Your task to perform on an android device: turn on wifi Image 0: 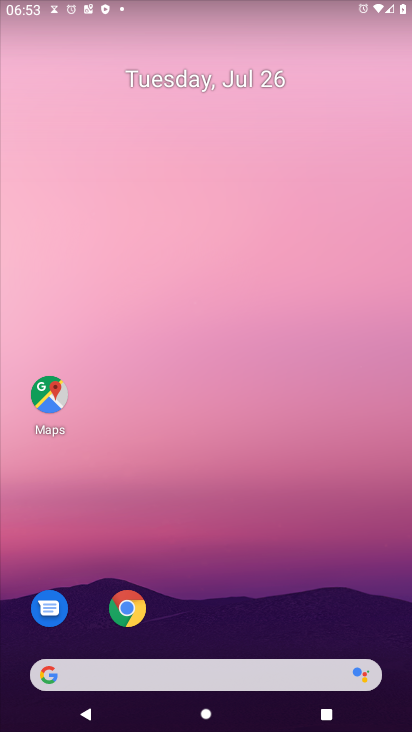
Step 0: drag from (210, 6) to (222, 559)
Your task to perform on an android device: turn on wifi Image 1: 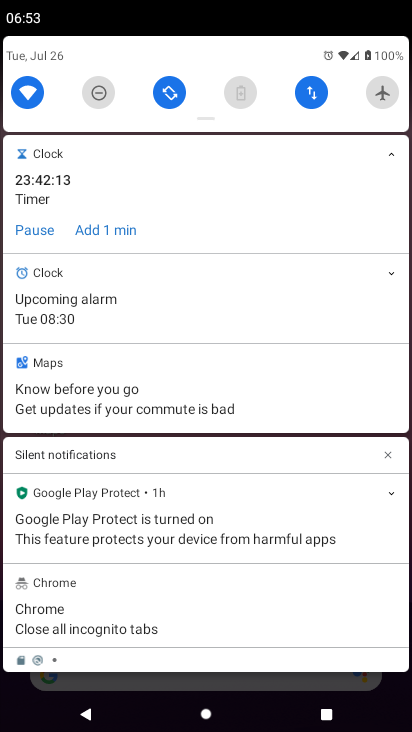
Step 1: task complete